Your task to perform on an android device: Do I have any events tomorrow? Image 0: 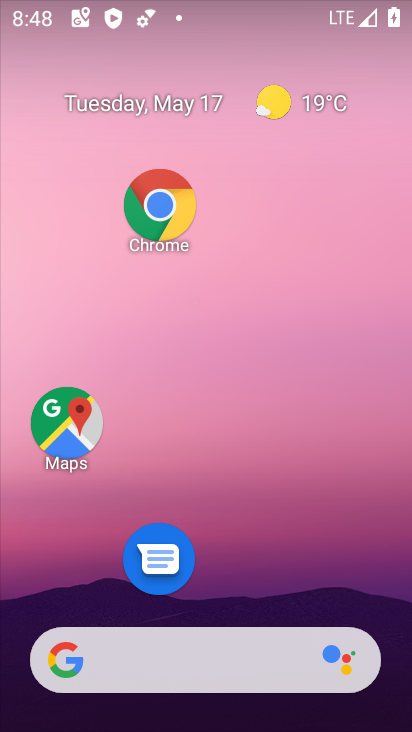
Step 0: drag from (229, 612) to (278, 161)
Your task to perform on an android device: Do I have any events tomorrow? Image 1: 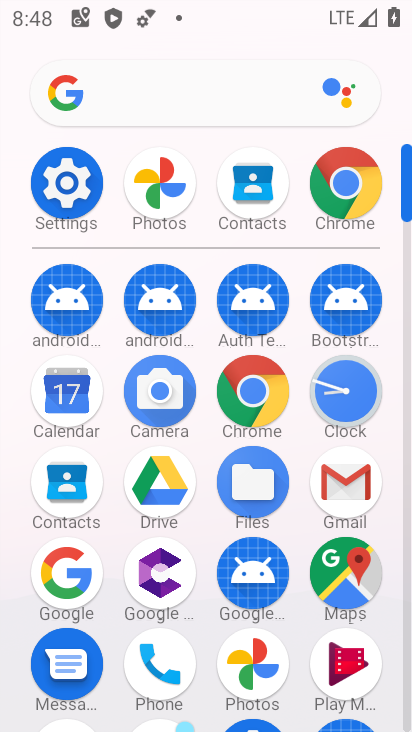
Step 1: click (56, 405)
Your task to perform on an android device: Do I have any events tomorrow? Image 2: 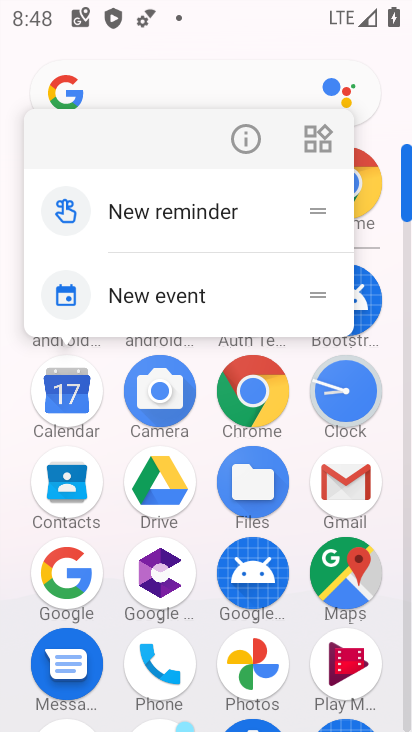
Step 2: click (238, 147)
Your task to perform on an android device: Do I have any events tomorrow? Image 3: 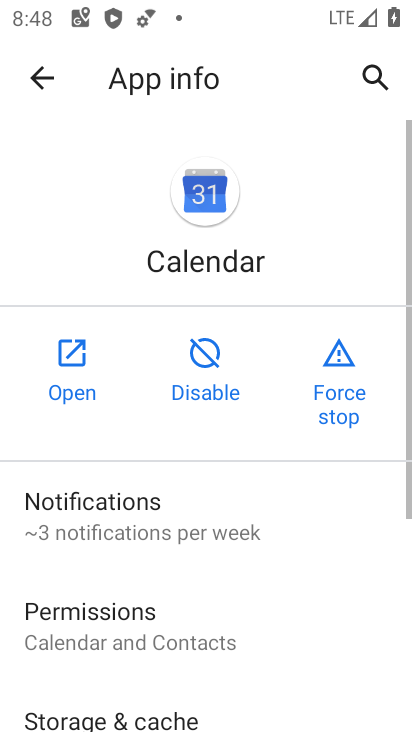
Step 3: click (72, 349)
Your task to perform on an android device: Do I have any events tomorrow? Image 4: 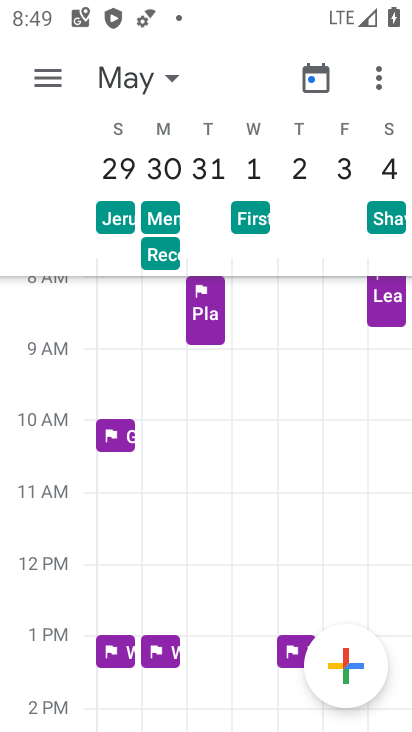
Step 4: click (150, 70)
Your task to perform on an android device: Do I have any events tomorrow? Image 5: 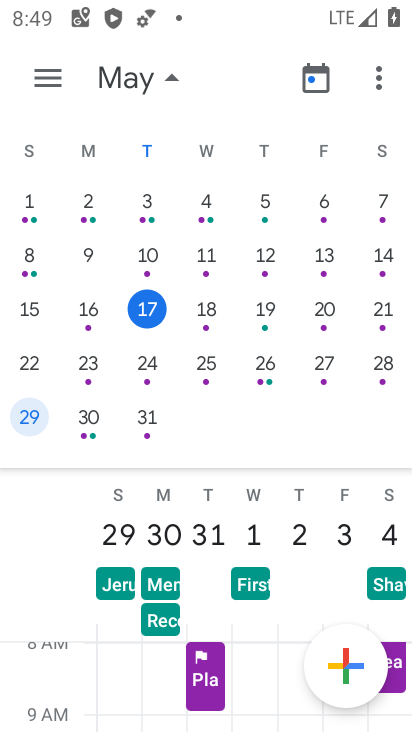
Step 5: click (210, 311)
Your task to perform on an android device: Do I have any events tomorrow? Image 6: 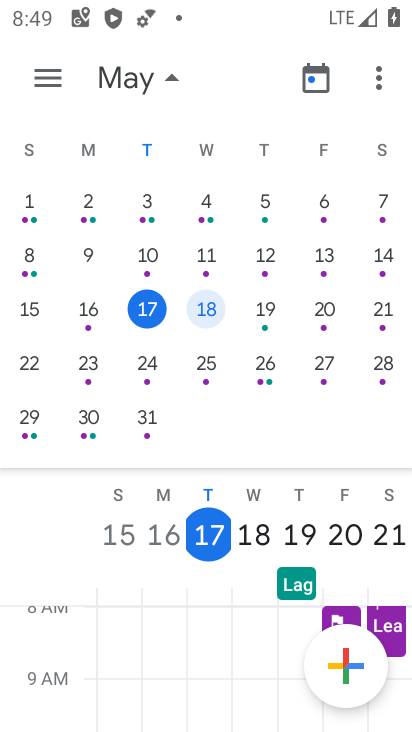
Step 6: task complete